Your task to perform on an android device: delete location history Image 0: 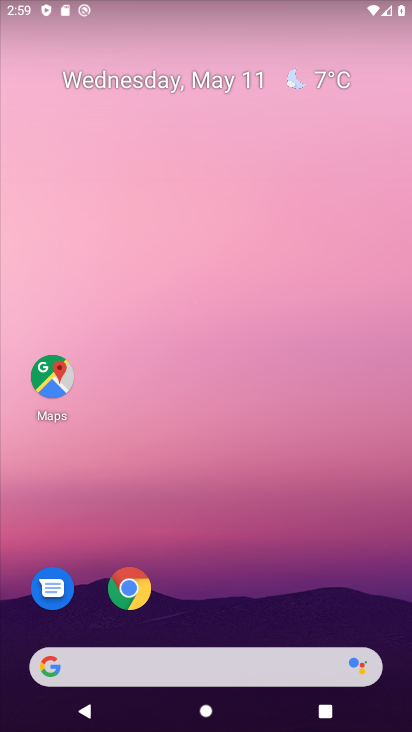
Step 0: drag from (219, 723) to (221, 193)
Your task to perform on an android device: delete location history Image 1: 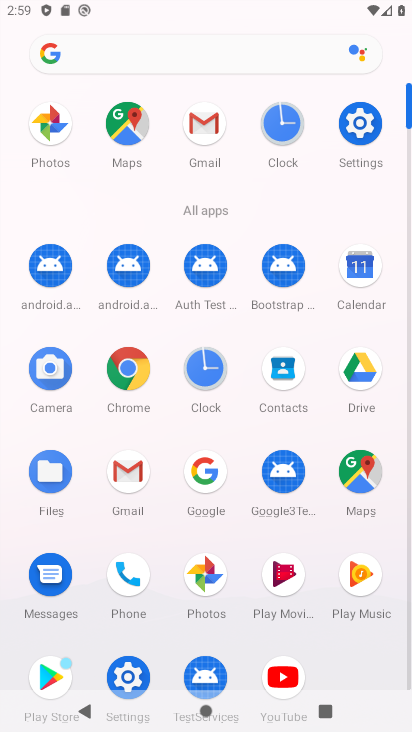
Step 1: click (354, 126)
Your task to perform on an android device: delete location history Image 2: 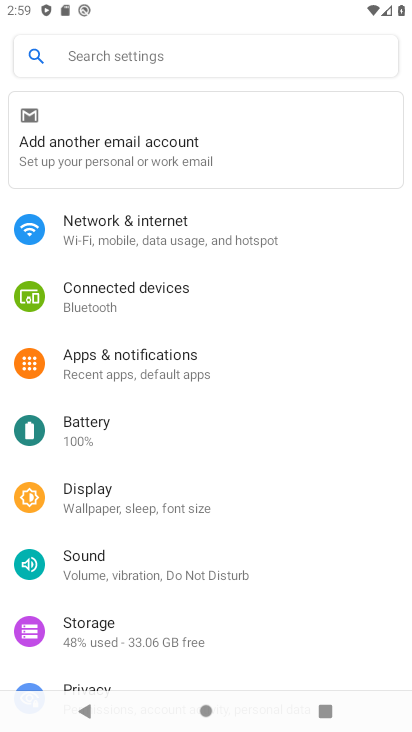
Step 2: drag from (183, 650) to (177, 224)
Your task to perform on an android device: delete location history Image 3: 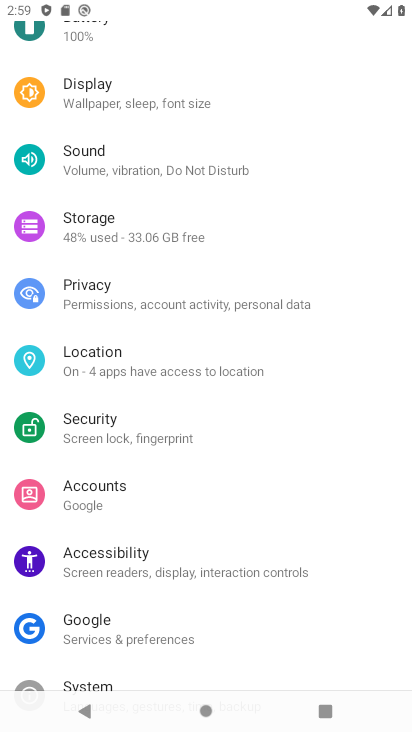
Step 3: click (106, 361)
Your task to perform on an android device: delete location history Image 4: 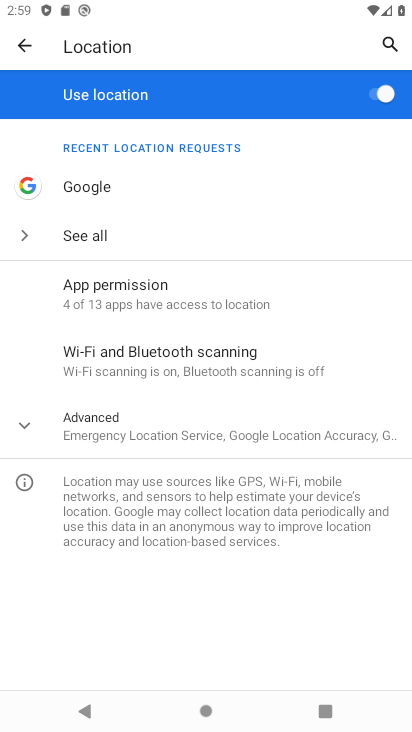
Step 4: click (118, 431)
Your task to perform on an android device: delete location history Image 5: 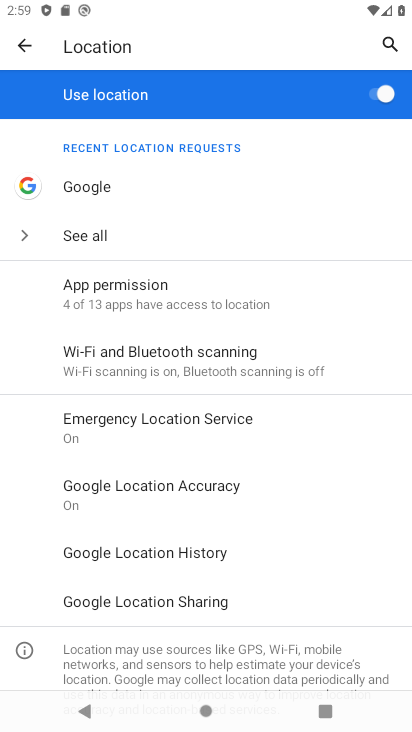
Step 5: click (159, 553)
Your task to perform on an android device: delete location history Image 6: 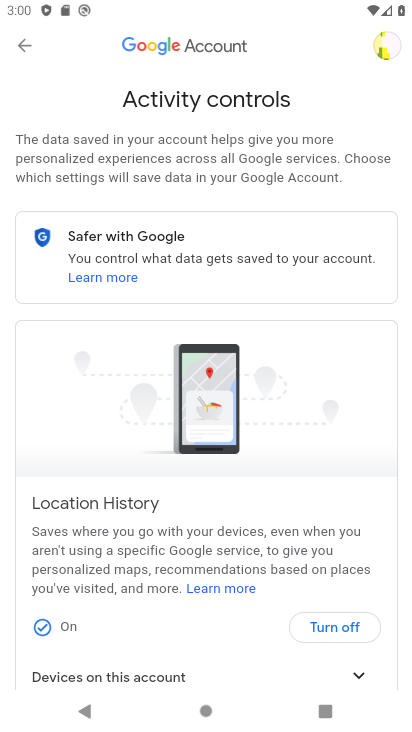
Step 6: drag from (195, 627) to (195, 165)
Your task to perform on an android device: delete location history Image 7: 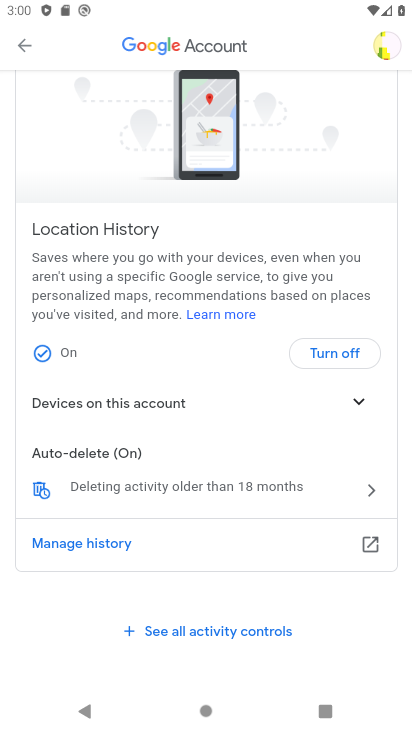
Step 7: click (44, 490)
Your task to perform on an android device: delete location history Image 8: 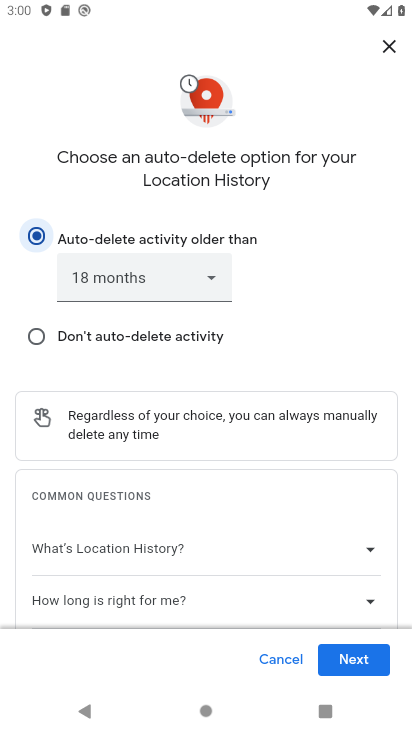
Step 8: click (357, 656)
Your task to perform on an android device: delete location history Image 9: 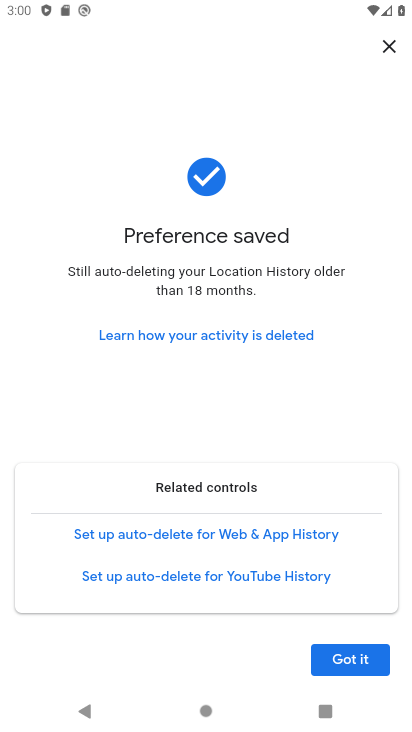
Step 9: click (359, 658)
Your task to perform on an android device: delete location history Image 10: 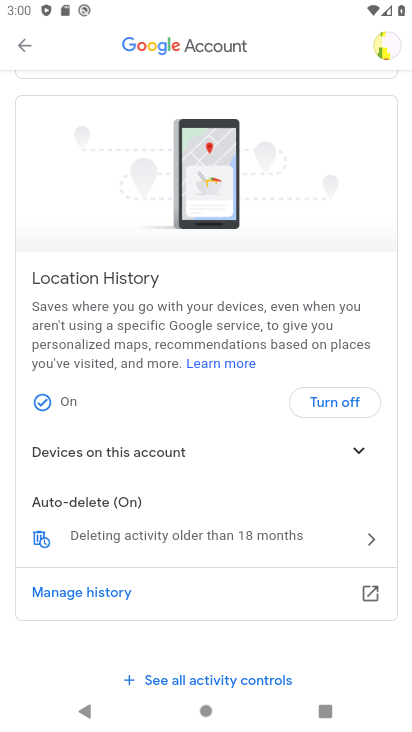
Step 10: task complete